Your task to perform on an android device: Go to Google Image 0: 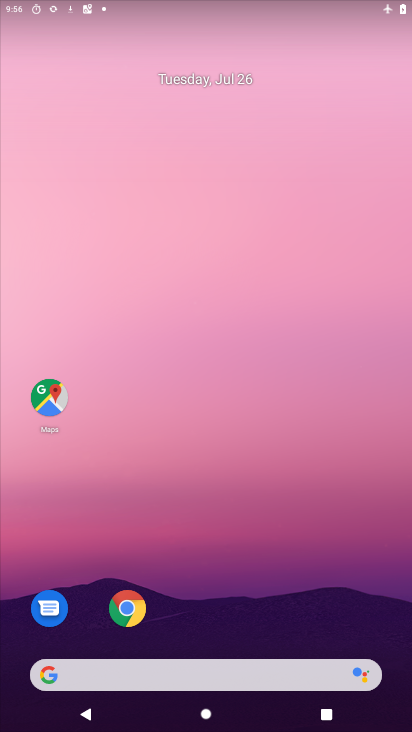
Step 0: drag from (193, 617) to (230, 220)
Your task to perform on an android device: Go to Google Image 1: 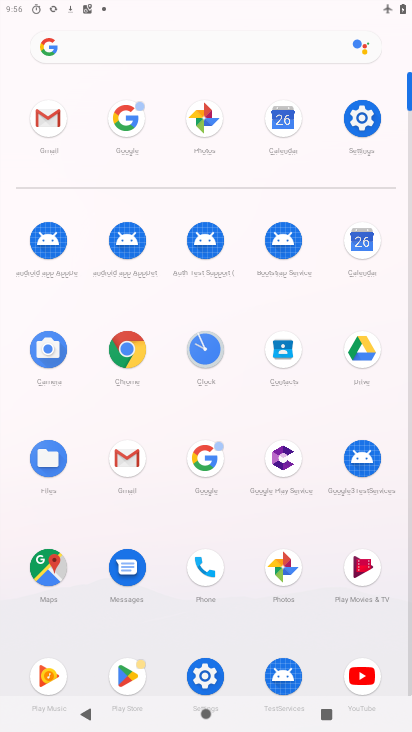
Step 1: click (107, 135)
Your task to perform on an android device: Go to Google Image 2: 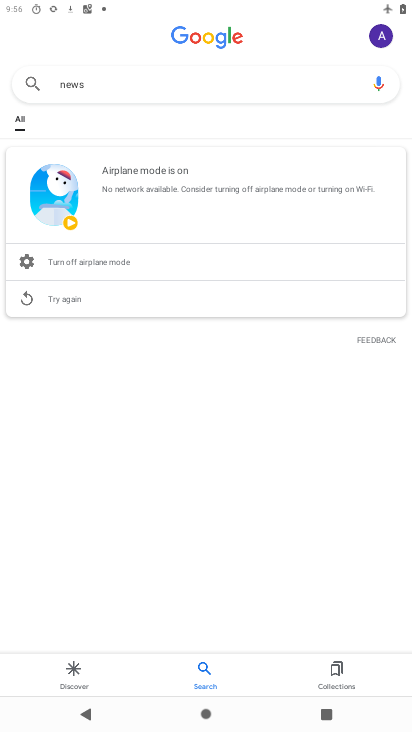
Step 2: task complete